Your task to perform on an android device: Search for sushi restaurants on Maps Image 0: 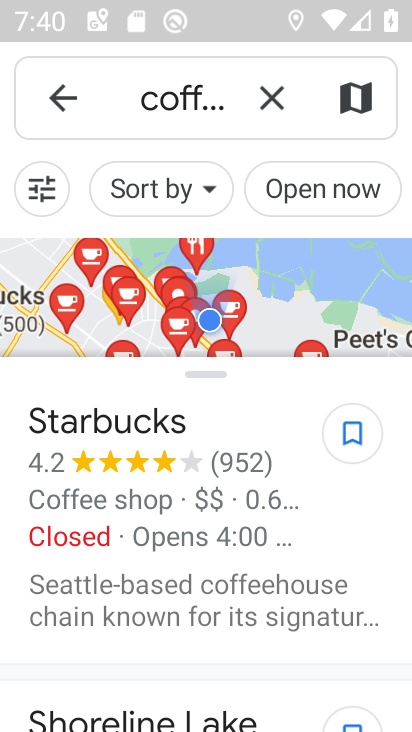
Step 0: click (269, 91)
Your task to perform on an android device: Search for sushi restaurants on Maps Image 1: 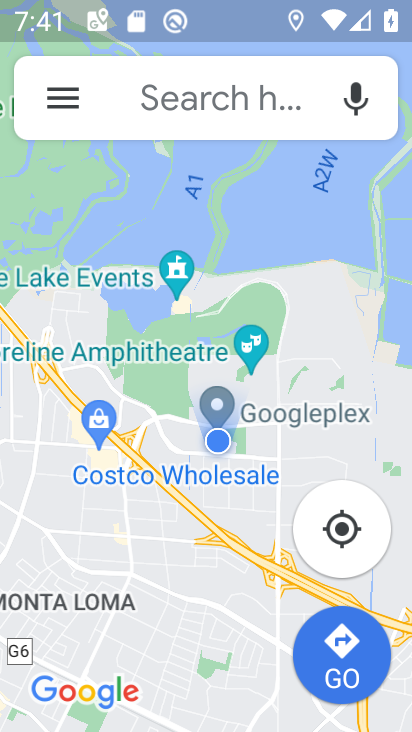
Step 1: click (218, 112)
Your task to perform on an android device: Search for sushi restaurants on Maps Image 2: 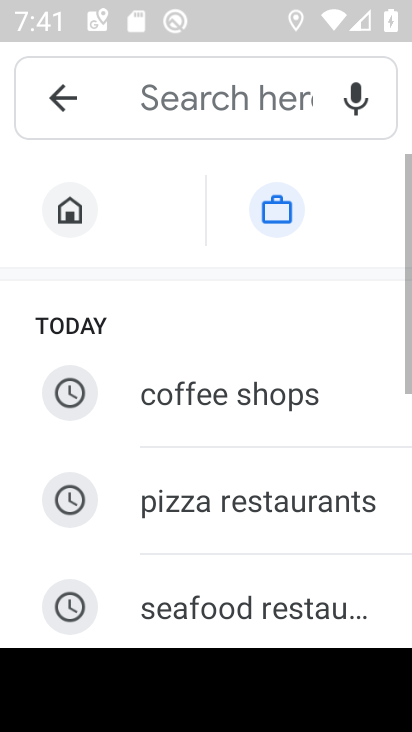
Step 2: drag from (239, 564) to (269, 112)
Your task to perform on an android device: Search for sushi restaurants on Maps Image 3: 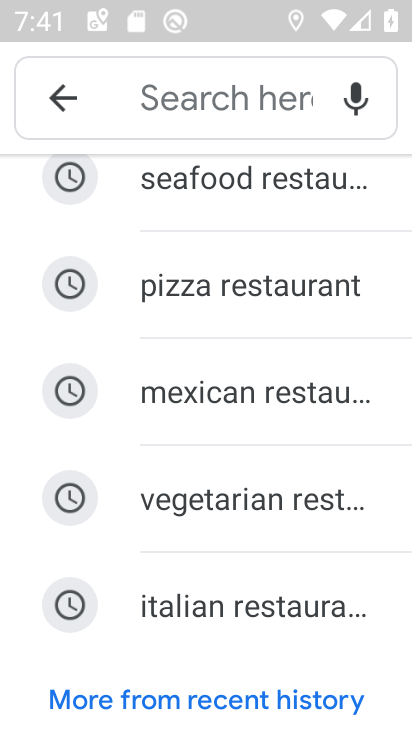
Step 3: click (168, 98)
Your task to perform on an android device: Search for sushi restaurants on Maps Image 4: 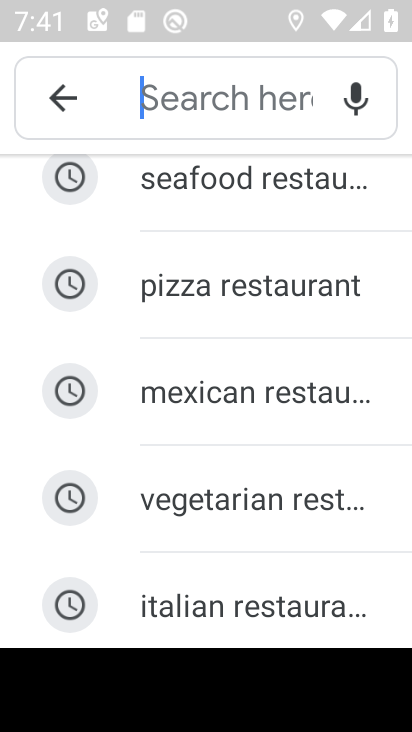
Step 4: type "sushi restaurants"
Your task to perform on an android device: Search for sushi restaurants on Maps Image 5: 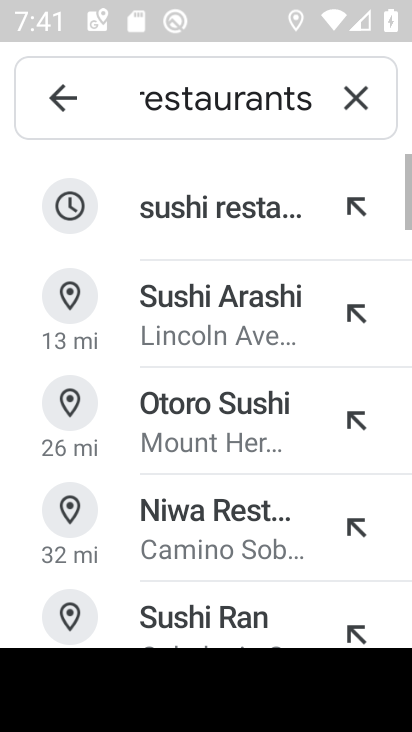
Step 5: click (184, 210)
Your task to perform on an android device: Search for sushi restaurants on Maps Image 6: 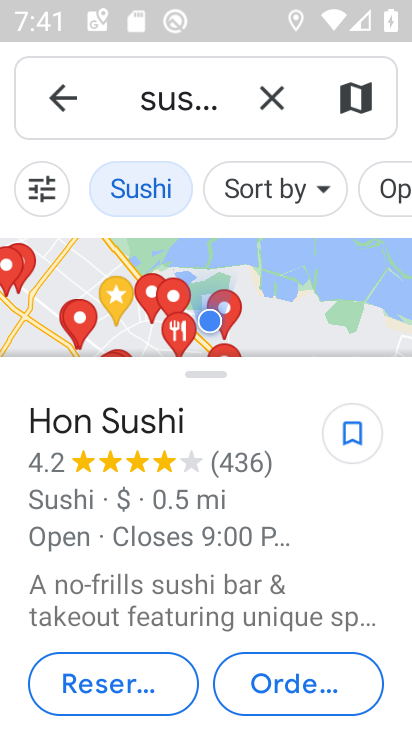
Step 6: task complete